Your task to perform on an android device: Open eBay Image 0: 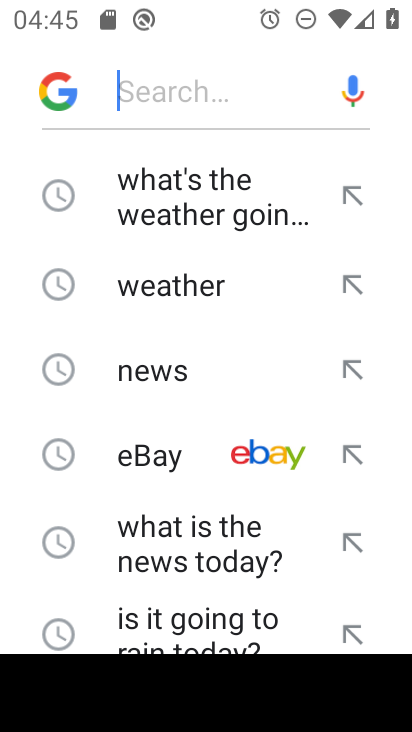
Step 0: press home button
Your task to perform on an android device: Open eBay Image 1: 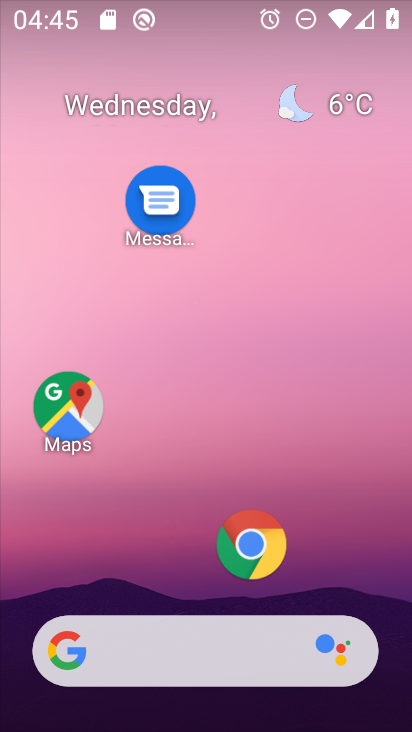
Step 1: click (265, 518)
Your task to perform on an android device: Open eBay Image 2: 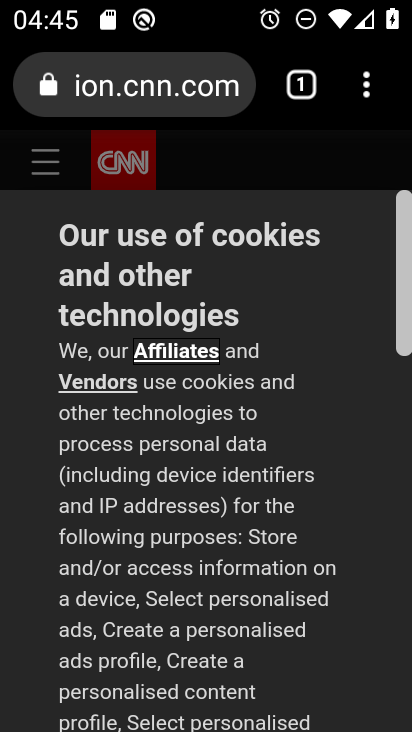
Step 2: click (172, 92)
Your task to perform on an android device: Open eBay Image 3: 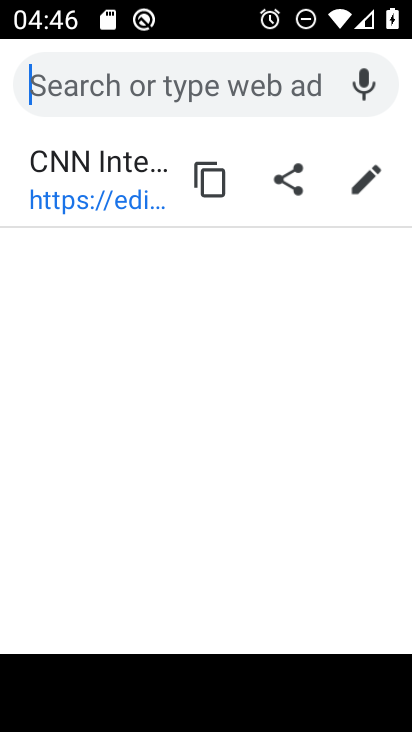
Step 3: type "ebay"
Your task to perform on an android device: Open eBay Image 4: 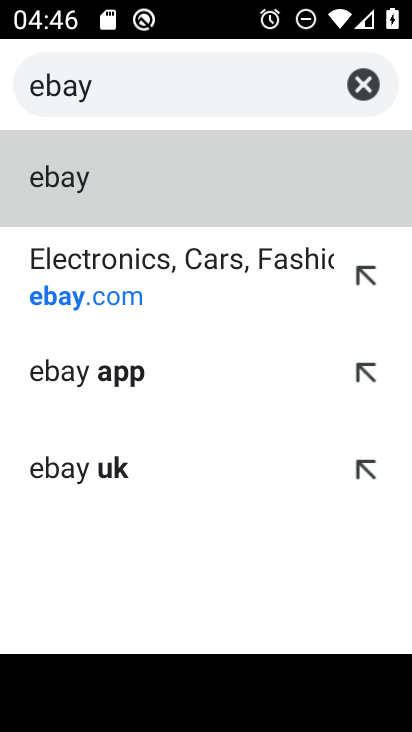
Step 4: click (177, 286)
Your task to perform on an android device: Open eBay Image 5: 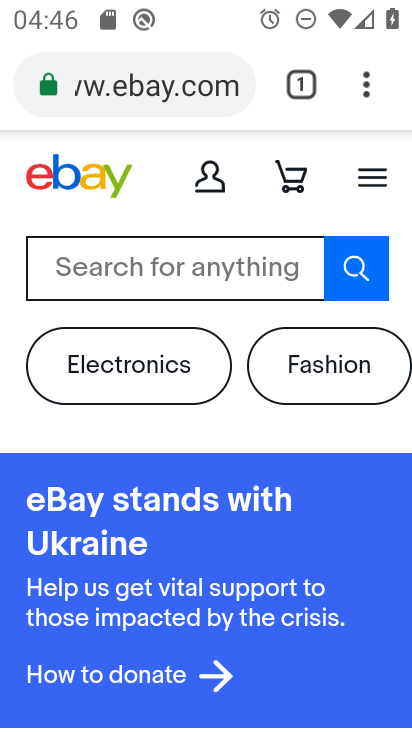
Step 5: task complete